Your task to perform on an android device: turn pop-ups on in chrome Image 0: 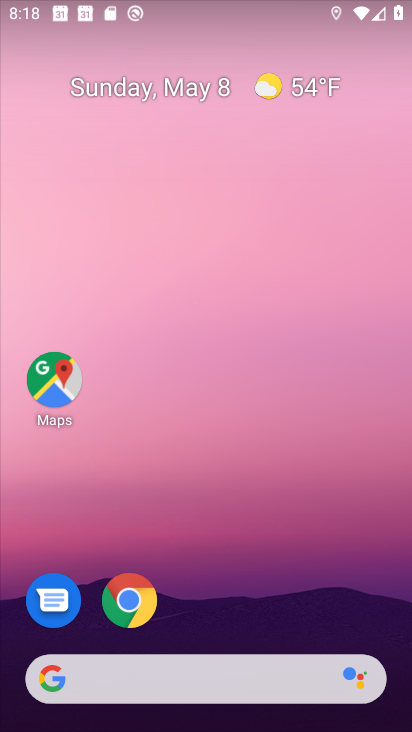
Step 0: click (146, 588)
Your task to perform on an android device: turn pop-ups on in chrome Image 1: 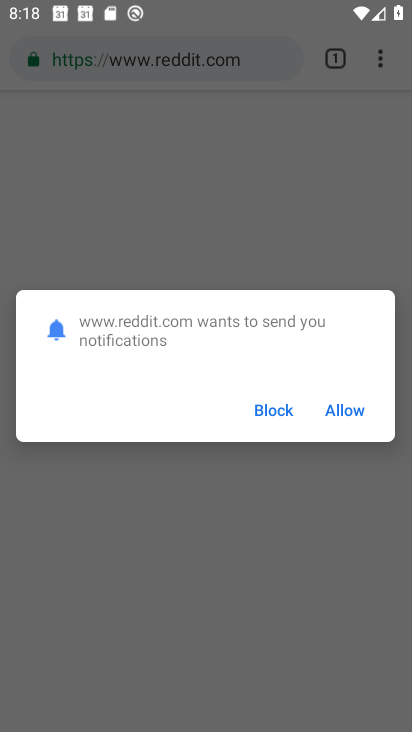
Step 1: click (265, 403)
Your task to perform on an android device: turn pop-ups on in chrome Image 2: 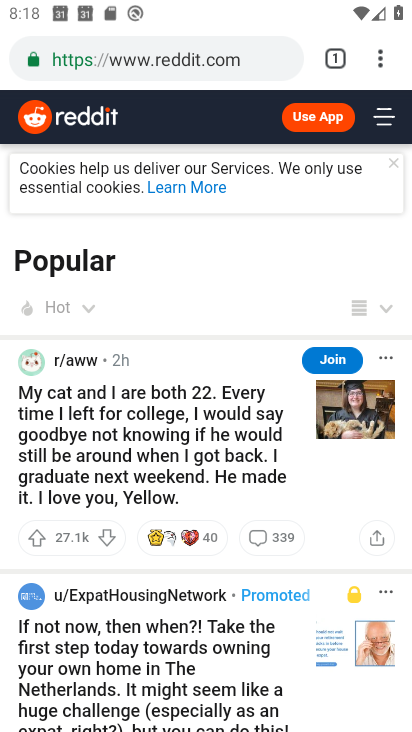
Step 2: click (374, 66)
Your task to perform on an android device: turn pop-ups on in chrome Image 3: 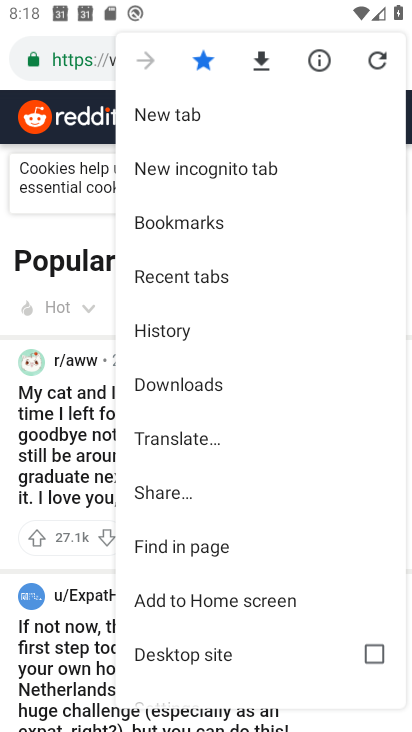
Step 3: drag from (271, 415) to (242, 136)
Your task to perform on an android device: turn pop-ups on in chrome Image 4: 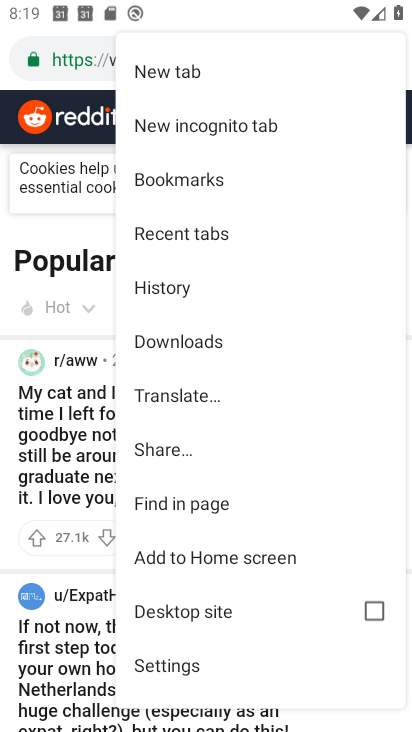
Step 4: click (184, 665)
Your task to perform on an android device: turn pop-ups on in chrome Image 5: 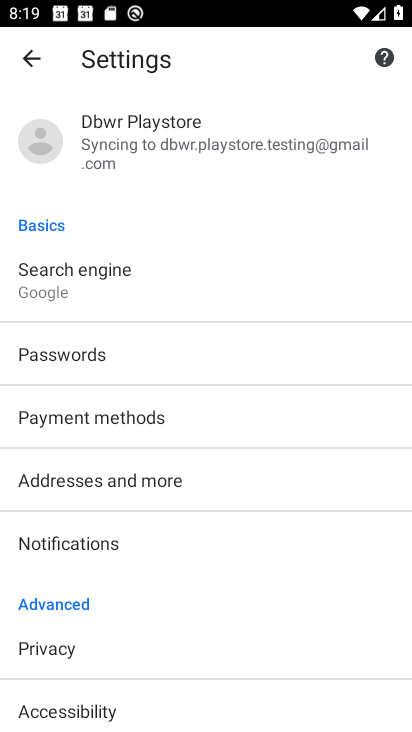
Step 5: drag from (184, 665) to (264, 393)
Your task to perform on an android device: turn pop-ups on in chrome Image 6: 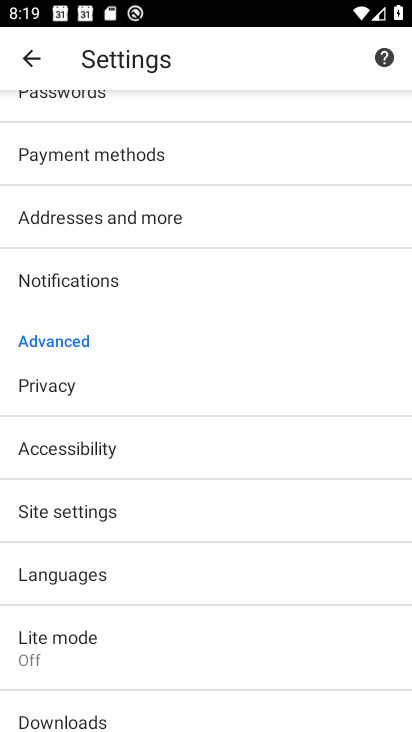
Step 6: click (114, 502)
Your task to perform on an android device: turn pop-ups on in chrome Image 7: 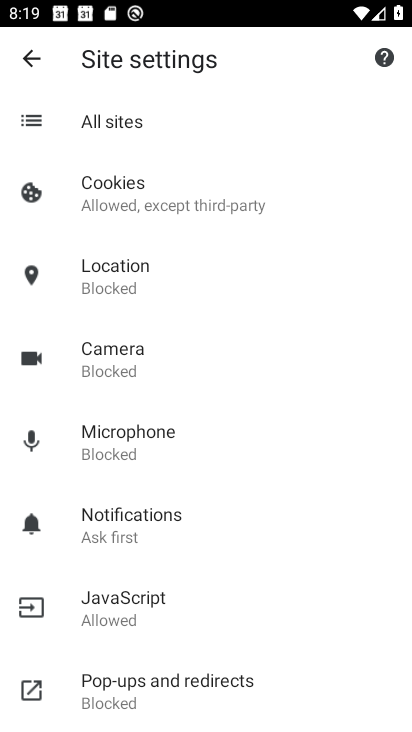
Step 7: click (160, 684)
Your task to perform on an android device: turn pop-ups on in chrome Image 8: 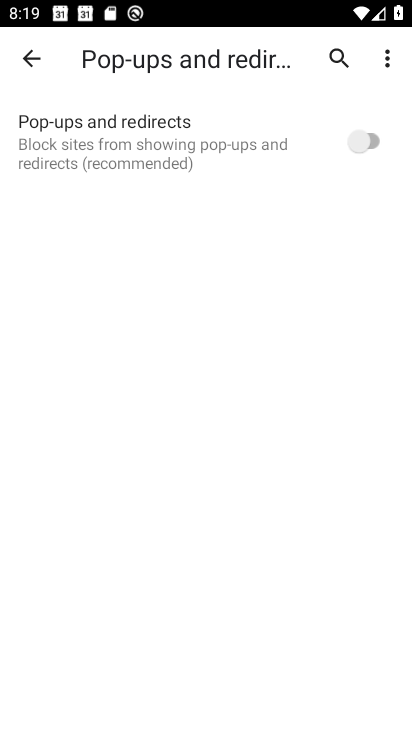
Step 8: click (371, 145)
Your task to perform on an android device: turn pop-ups on in chrome Image 9: 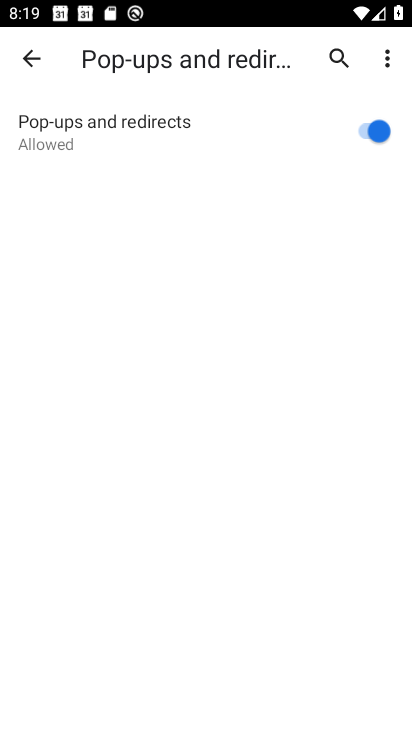
Step 9: task complete